Your task to perform on an android device: Turn on the flashlight Image 0: 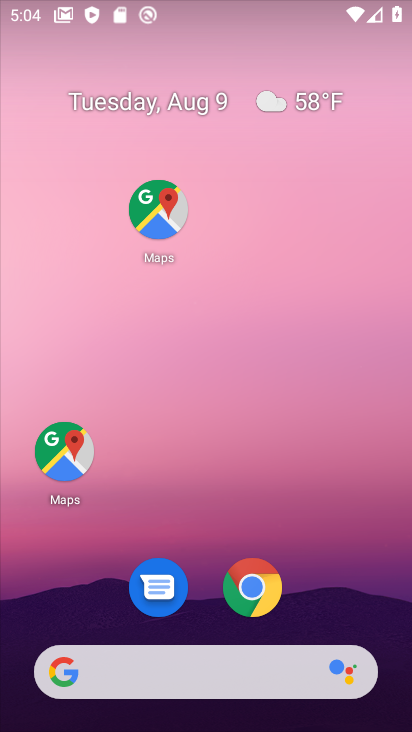
Step 0: press home button
Your task to perform on an android device: Turn on the flashlight Image 1: 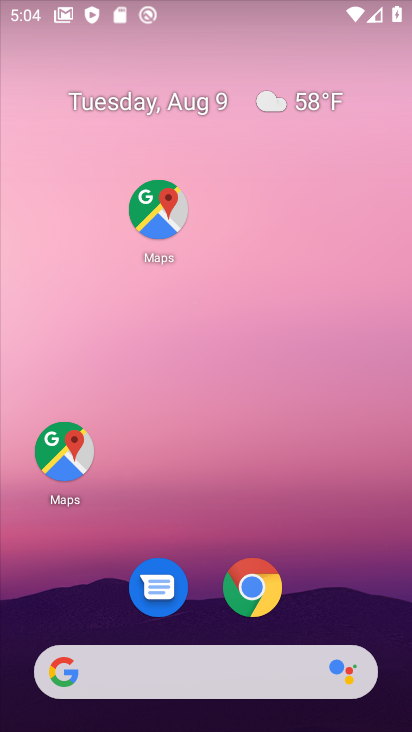
Step 1: task complete